Your task to perform on an android device: What's the weather like in Seoul? Image 0: 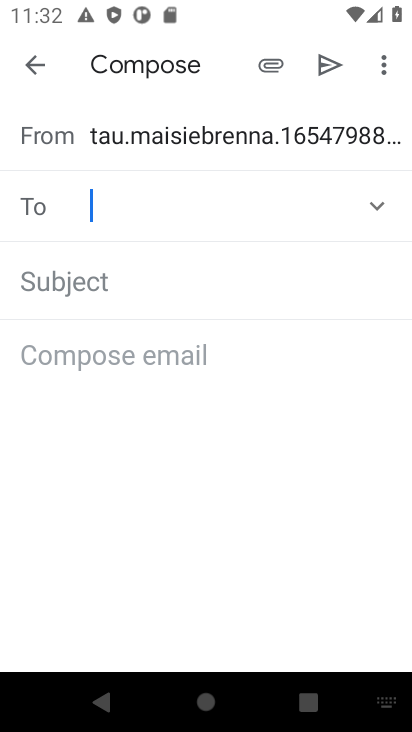
Step 0: press home button
Your task to perform on an android device: What's the weather like in Seoul? Image 1: 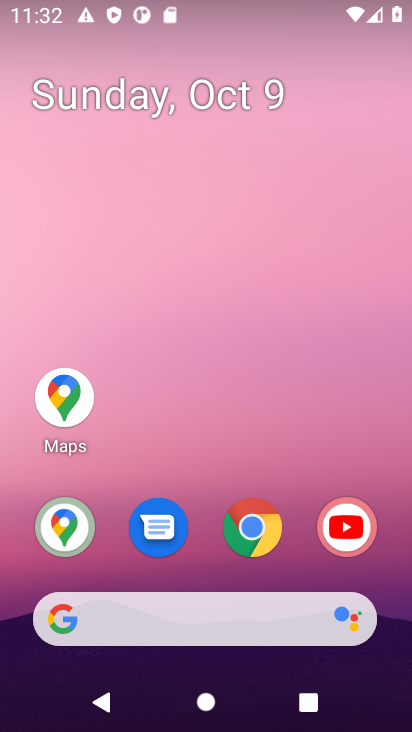
Step 1: click (249, 518)
Your task to perform on an android device: What's the weather like in Seoul? Image 2: 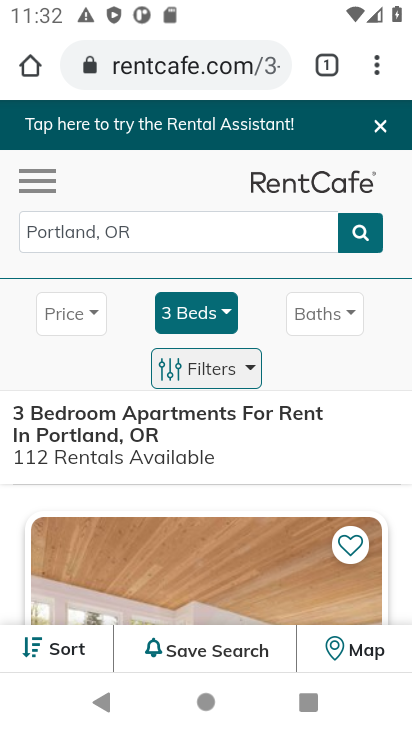
Step 2: click (195, 34)
Your task to perform on an android device: What's the weather like in Seoul? Image 3: 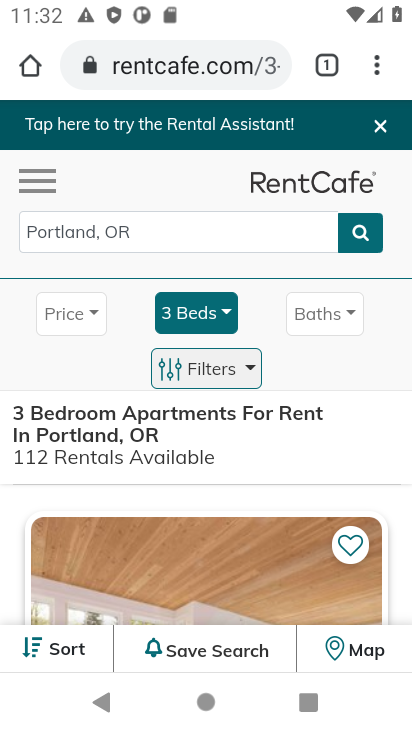
Step 3: click (181, 66)
Your task to perform on an android device: What's the weather like in Seoul? Image 4: 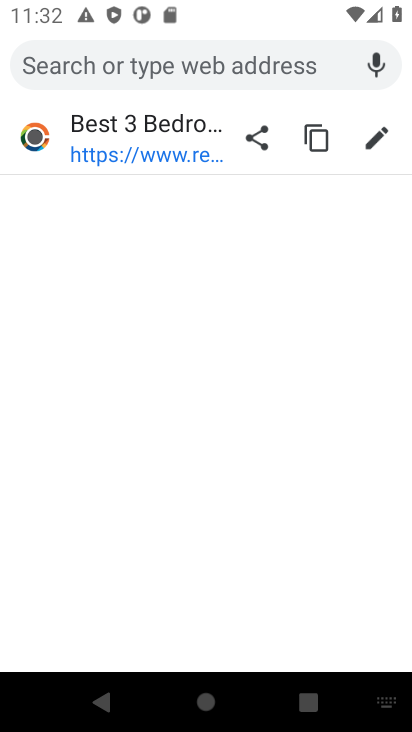
Step 4: type "What's the weather like in Seoul?"
Your task to perform on an android device: What's the weather like in Seoul? Image 5: 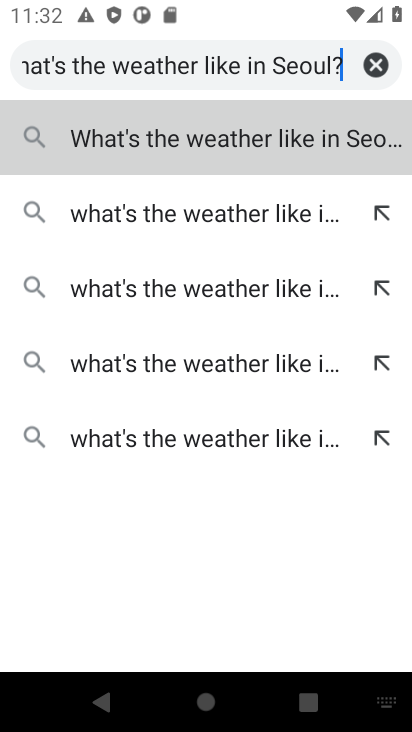
Step 5: click (219, 59)
Your task to perform on an android device: What's the weather like in Seoul? Image 6: 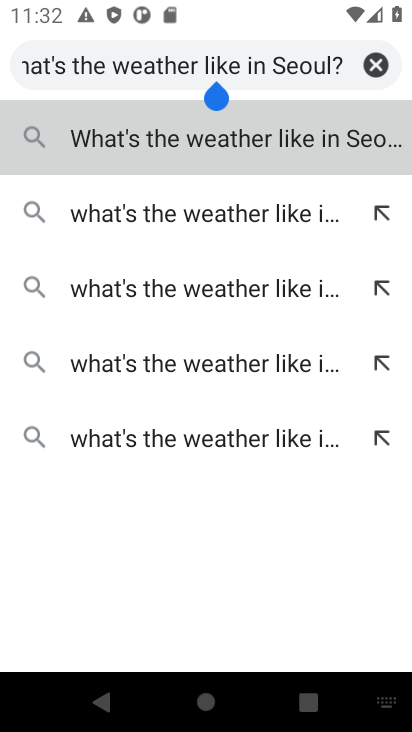
Step 6: click (228, 116)
Your task to perform on an android device: What's the weather like in Seoul? Image 7: 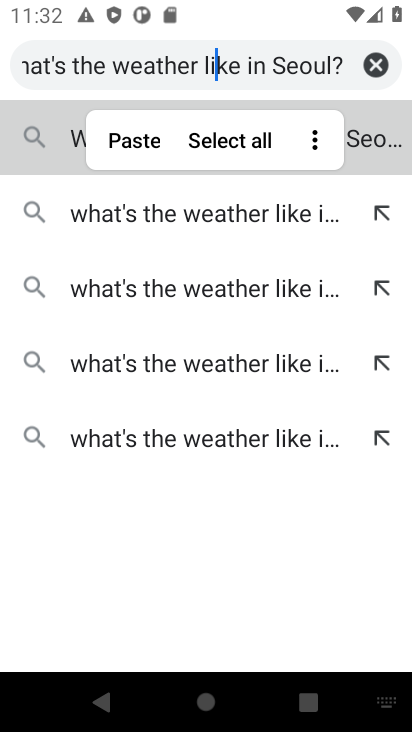
Step 7: click (373, 133)
Your task to perform on an android device: What's the weather like in Seoul? Image 8: 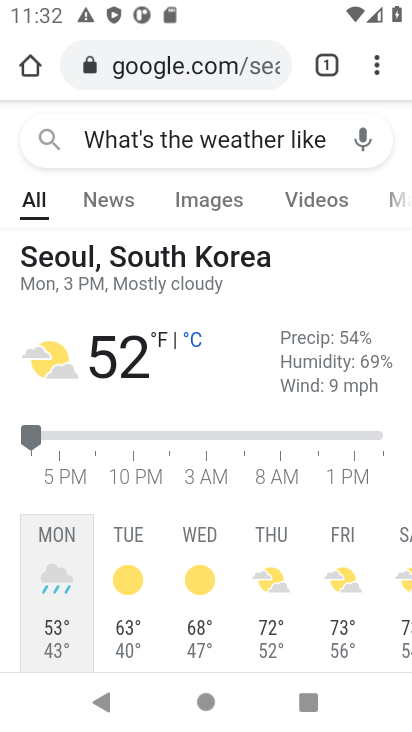
Step 8: task complete